Your task to perform on an android device: turn off notifications settings in the gmail app Image 0: 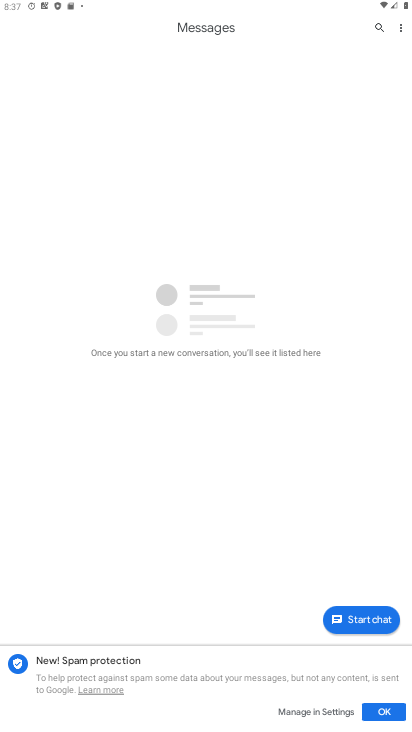
Step 0: press home button
Your task to perform on an android device: turn off notifications settings in the gmail app Image 1: 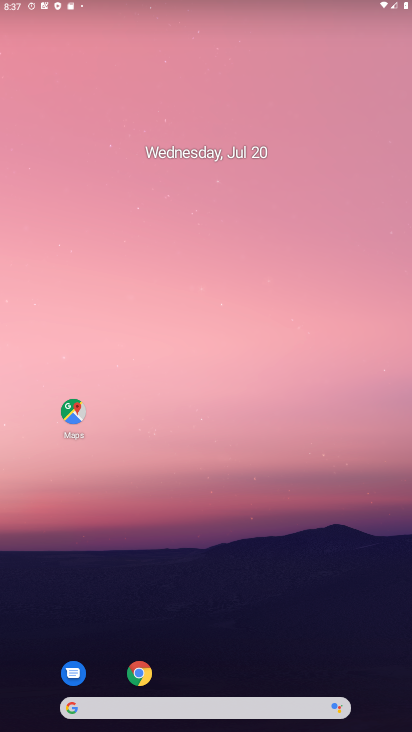
Step 1: drag from (393, 654) to (205, 155)
Your task to perform on an android device: turn off notifications settings in the gmail app Image 2: 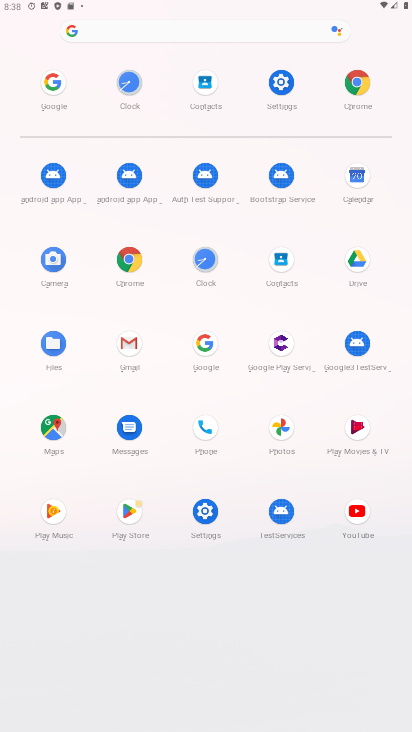
Step 2: click (131, 348)
Your task to perform on an android device: turn off notifications settings in the gmail app Image 3: 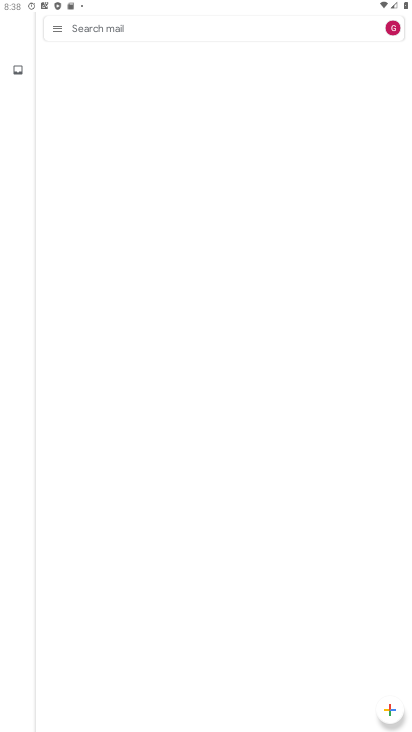
Step 3: click (54, 31)
Your task to perform on an android device: turn off notifications settings in the gmail app Image 4: 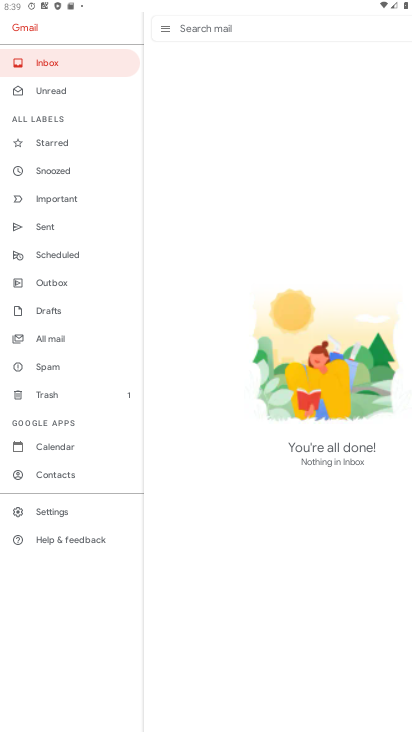
Step 4: click (64, 507)
Your task to perform on an android device: turn off notifications settings in the gmail app Image 5: 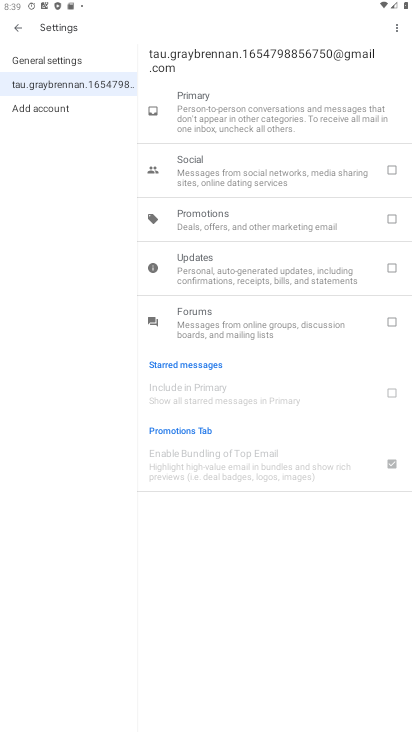
Step 5: click (91, 92)
Your task to perform on an android device: turn off notifications settings in the gmail app Image 6: 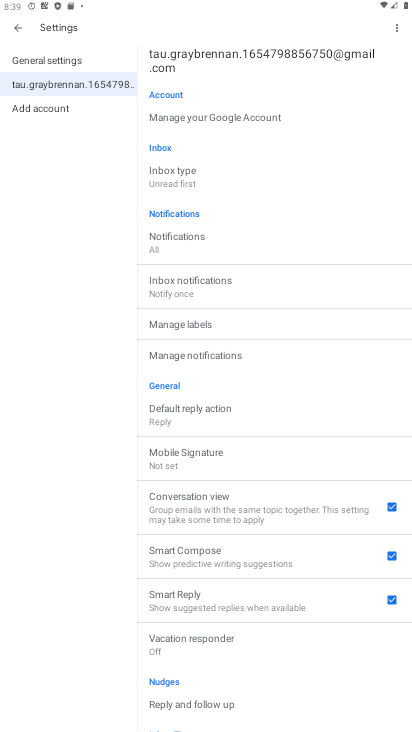
Step 6: click (167, 250)
Your task to perform on an android device: turn off notifications settings in the gmail app Image 7: 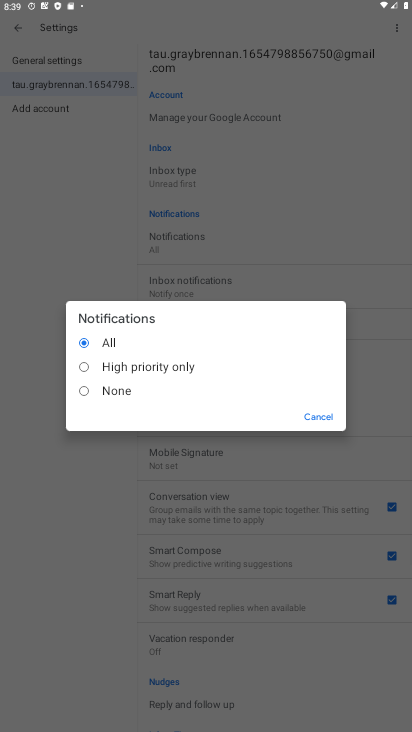
Step 7: click (93, 387)
Your task to perform on an android device: turn off notifications settings in the gmail app Image 8: 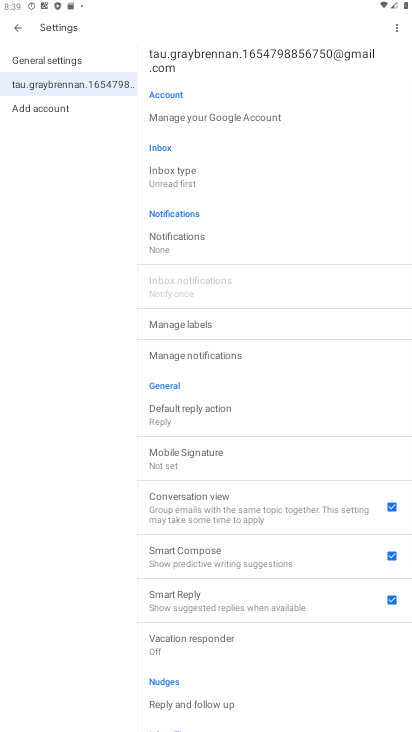
Step 8: task complete